Your task to perform on an android device: clear all cookies in the chrome app Image 0: 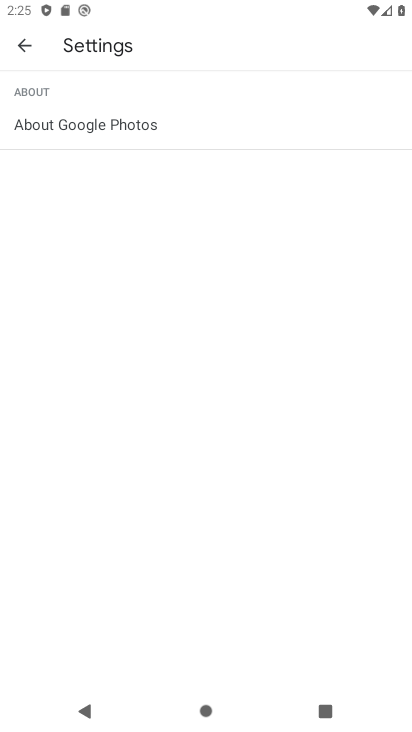
Step 0: press home button
Your task to perform on an android device: clear all cookies in the chrome app Image 1: 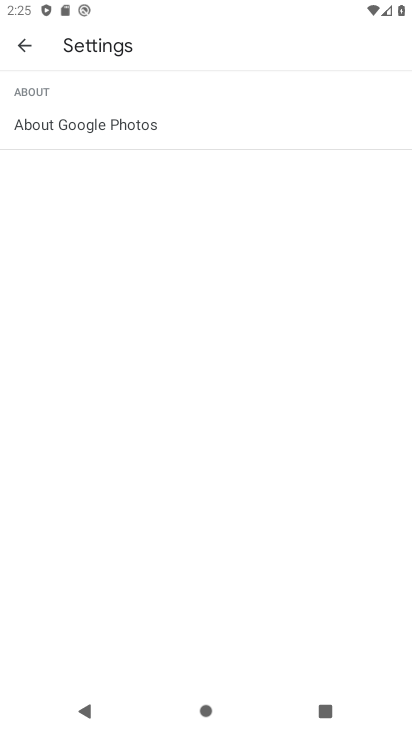
Step 1: press home button
Your task to perform on an android device: clear all cookies in the chrome app Image 2: 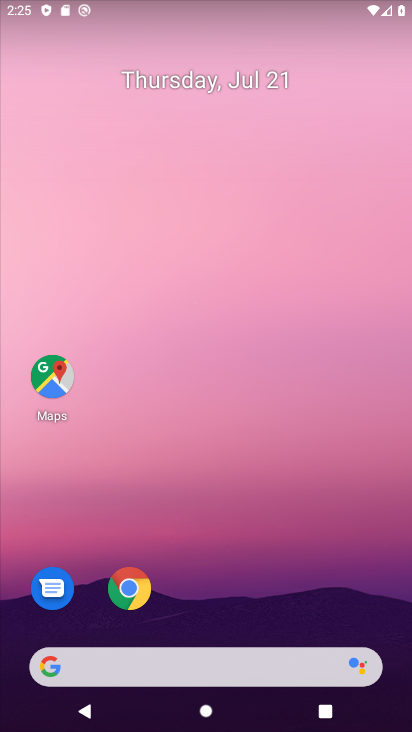
Step 2: drag from (213, 657) to (324, 341)
Your task to perform on an android device: clear all cookies in the chrome app Image 3: 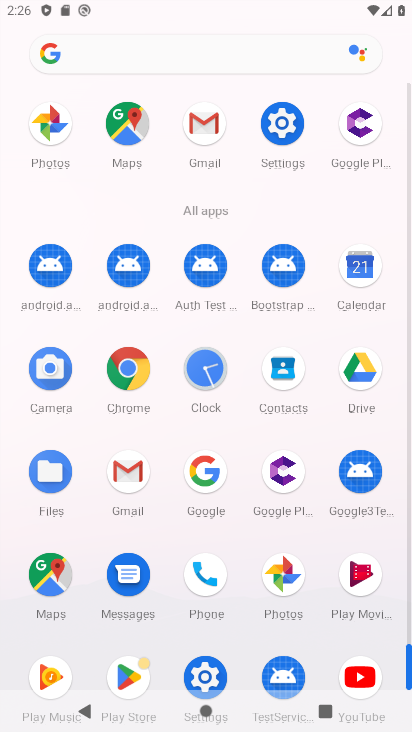
Step 3: click (126, 380)
Your task to perform on an android device: clear all cookies in the chrome app Image 4: 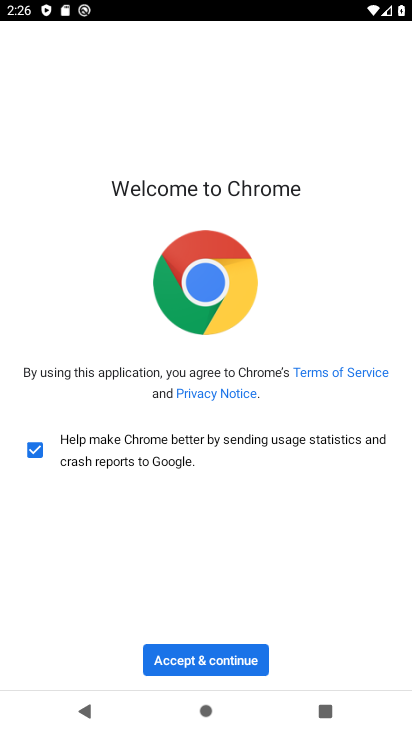
Step 4: click (194, 659)
Your task to perform on an android device: clear all cookies in the chrome app Image 5: 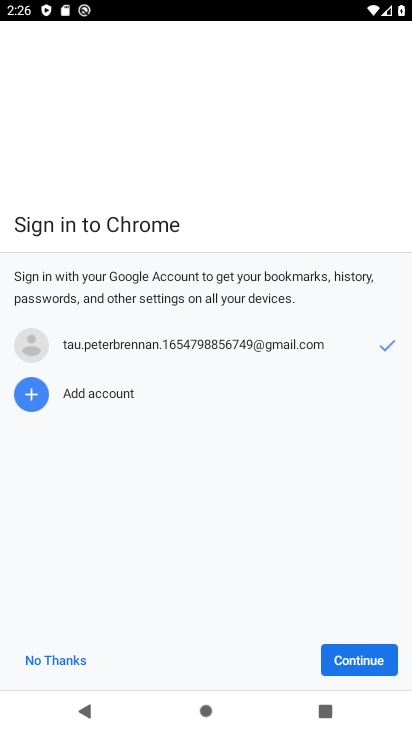
Step 5: click (382, 647)
Your task to perform on an android device: clear all cookies in the chrome app Image 6: 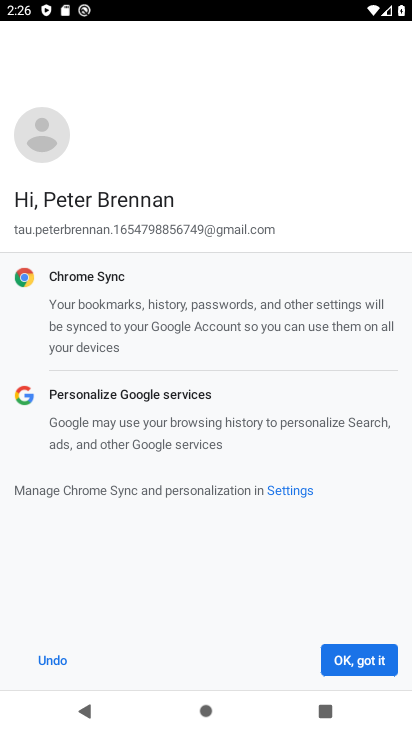
Step 6: click (381, 659)
Your task to perform on an android device: clear all cookies in the chrome app Image 7: 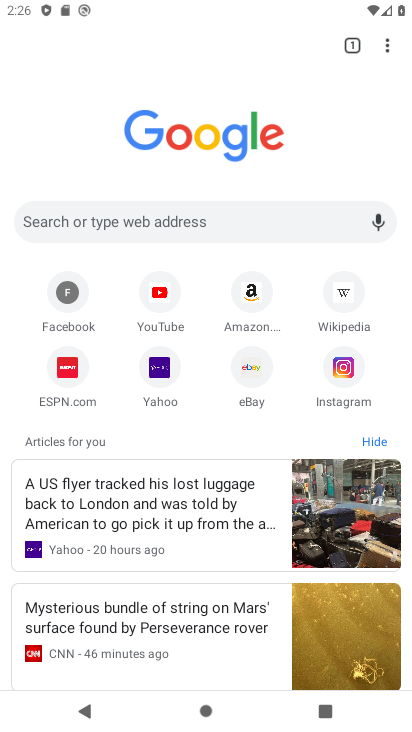
Step 7: click (384, 55)
Your task to perform on an android device: clear all cookies in the chrome app Image 8: 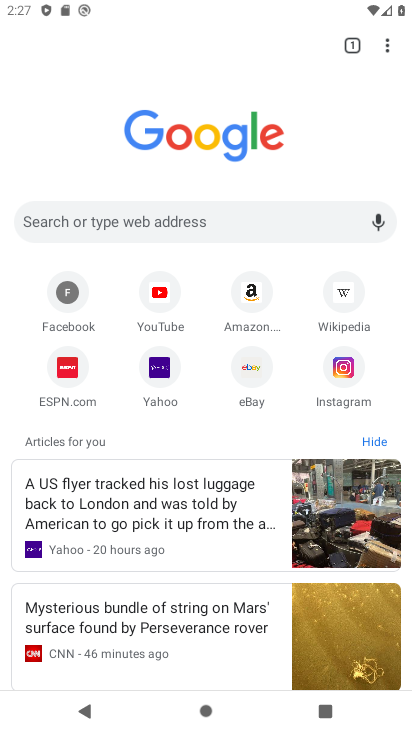
Step 8: click (387, 51)
Your task to perform on an android device: clear all cookies in the chrome app Image 9: 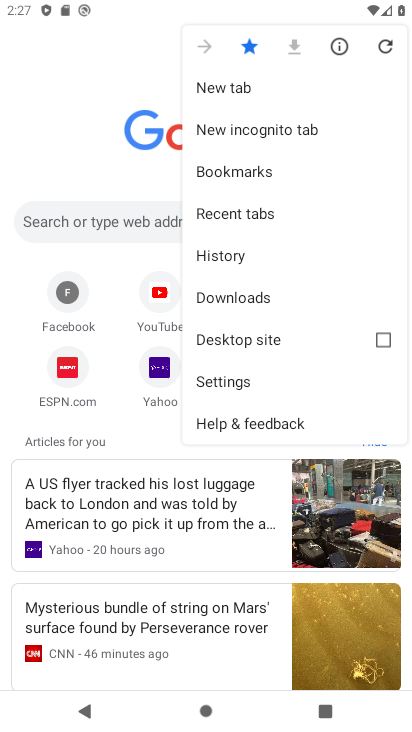
Step 9: click (237, 381)
Your task to perform on an android device: clear all cookies in the chrome app Image 10: 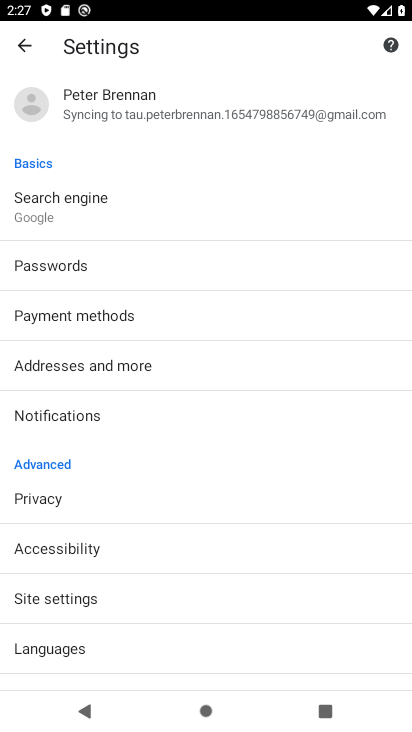
Step 10: click (15, 48)
Your task to perform on an android device: clear all cookies in the chrome app Image 11: 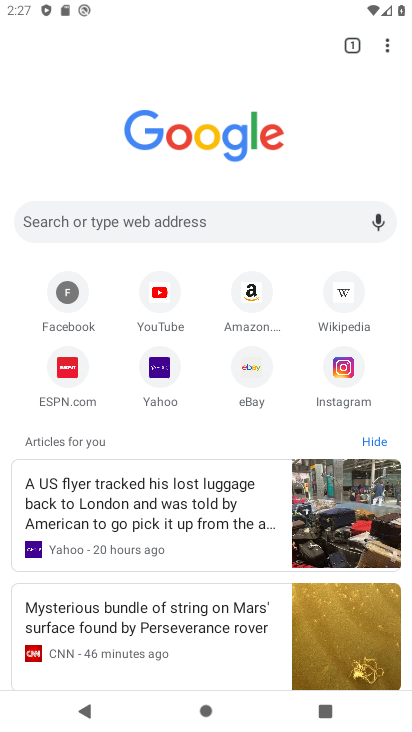
Step 11: click (389, 50)
Your task to perform on an android device: clear all cookies in the chrome app Image 12: 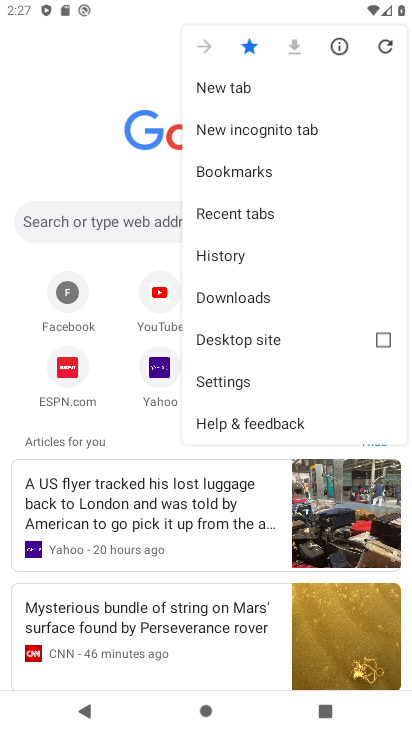
Step 12: click (231, 258)
Your task to perform on an android device: clear all cookies in the chrome app Image 13: 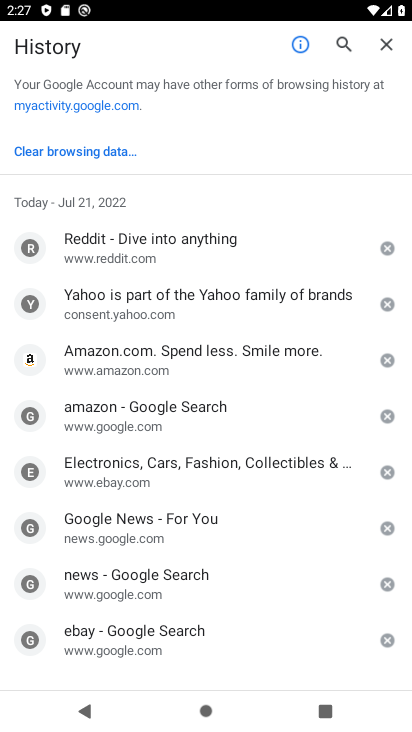
Step 13: click (120, 151)
Your task to perform on an android device: clear all cookies in the chrome app Image 14: 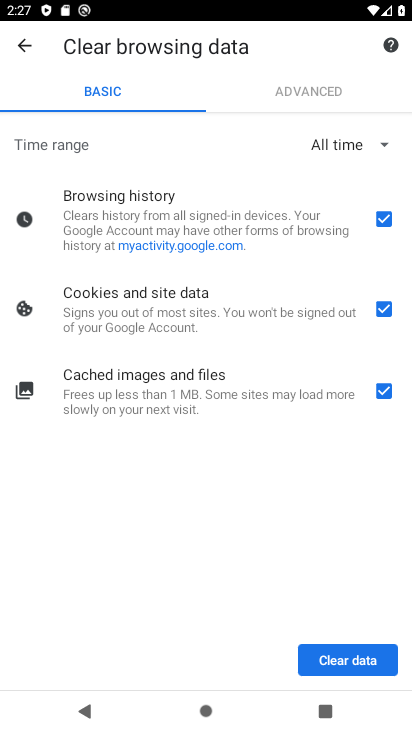
Step 14: click (387, 214)
Your task to perform on an android device: clear all cookies in the chrome app Image 15: 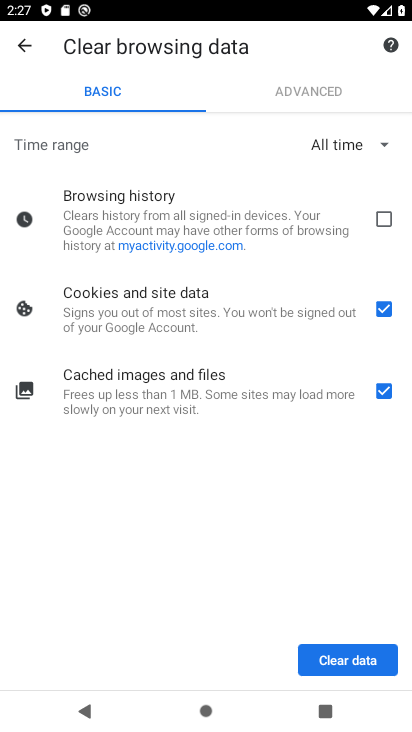
Step 15: click (390, 399)
Your task to perform on an android device: clear all cookies in the chrome app Image 16: 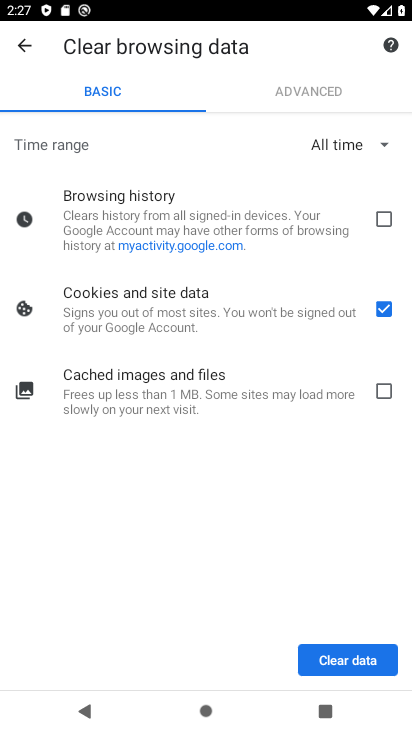
Step 16: click (347, 650)
Your task to perform on an android device: clear all cookies in the chrome app Image 17: 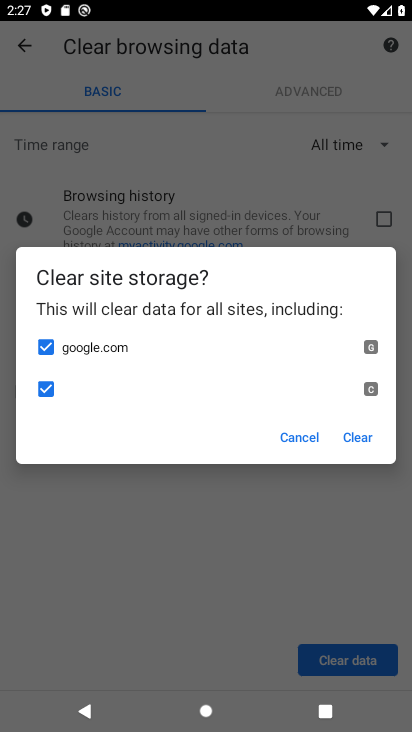
Step 17: click (357, 438)
Your task to perform on an android device: clear all cookies in the chrome app Image 18: 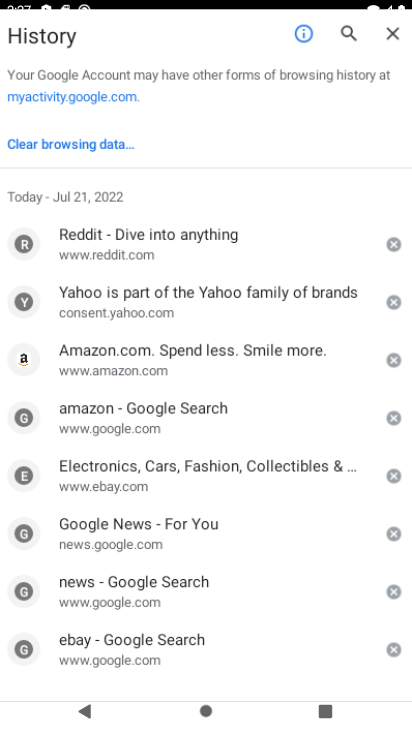
Step 18: click (346, 444)
Your task to perform on an android device: clear all cookies in the chrome app Image 19: 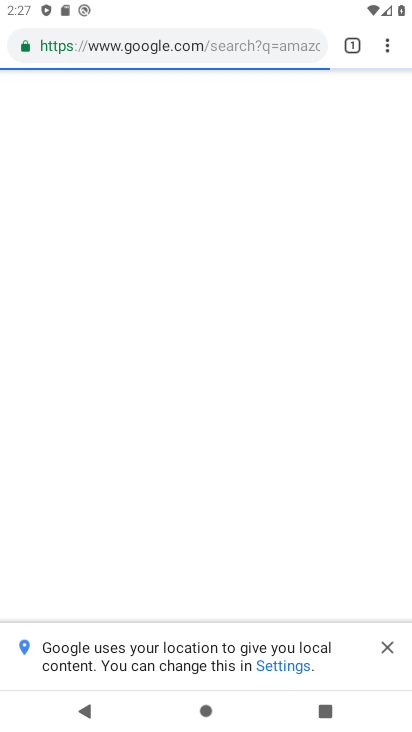
Step 19: task complete